Your task to perform on an android device: turn on wifi Image 0: 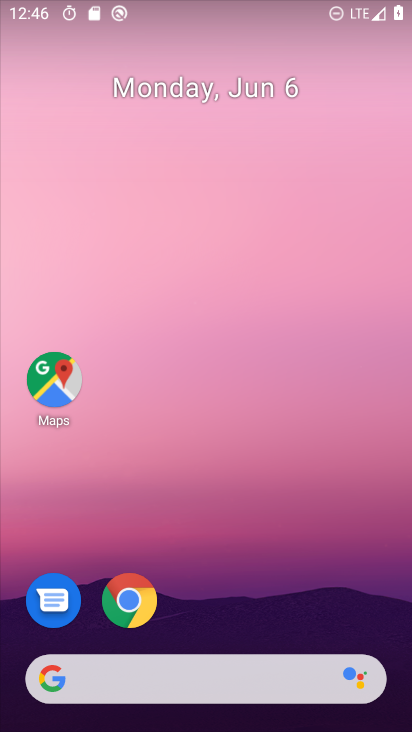
Step 0: drag from (237, 605) to (203, 210)
Your task to perform on an android device: turn on wifi Image 1: 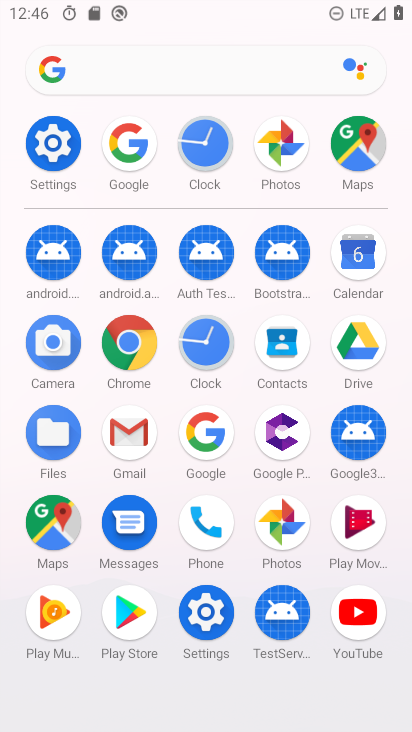
Step 1: click (44, 155)
Your task to perform on an android device: turn on wifi Image 2: 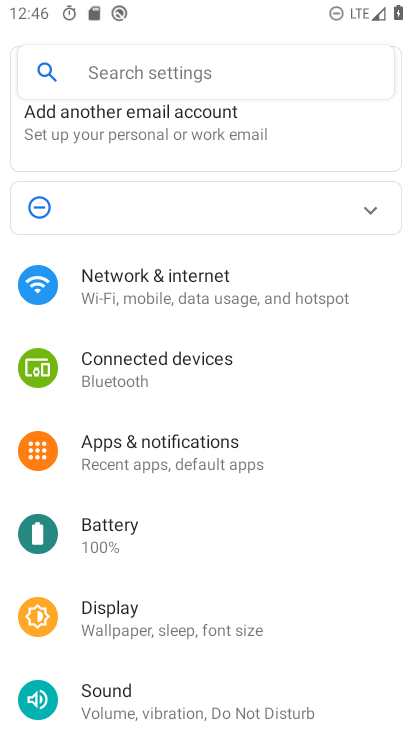
Step 2: click (115, 251)
Your task to perform on an android device: turn on wifi Image 3: 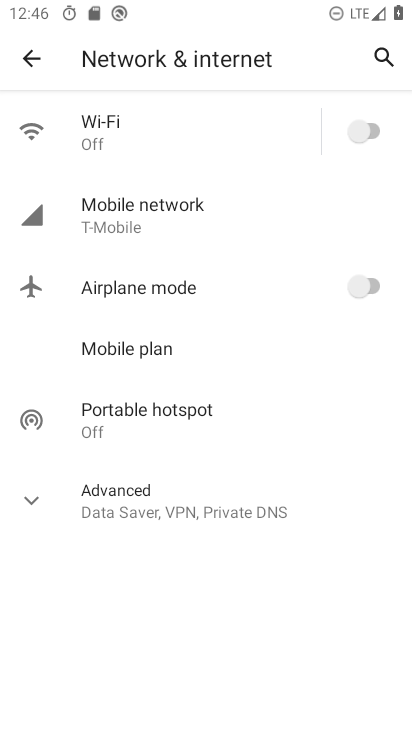
Step 3: click (388, 132)
Your task to perform on an android device: turn on wifi Image 4: 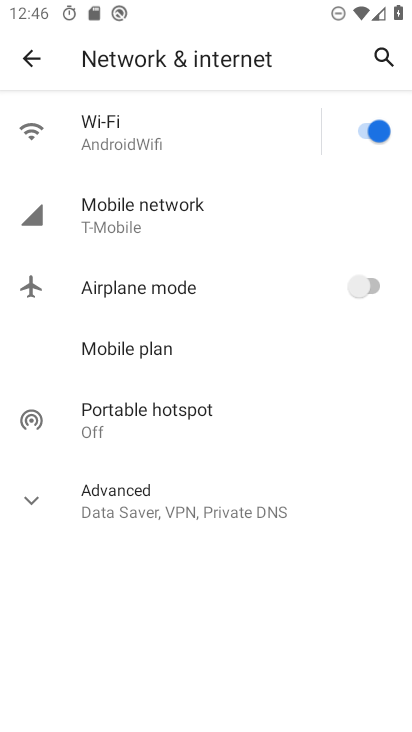
Step 4: task complete